Your task to perform on an android device: turn notification dots on Image 0: 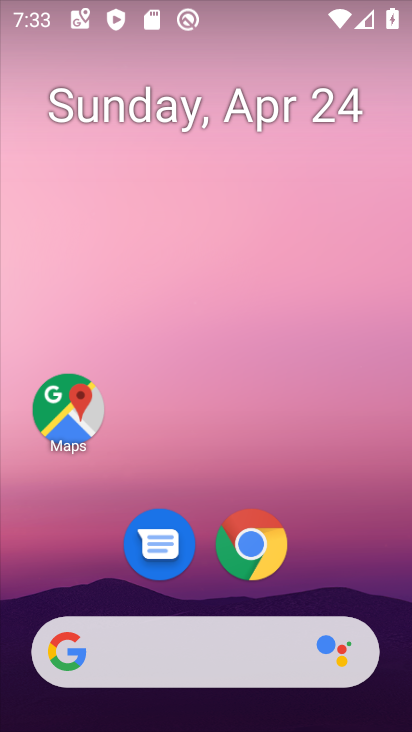
Step 0: drag from (178, 649) to (216, 120)
Your task to perform on an android device: turn notification dots on Image 1: 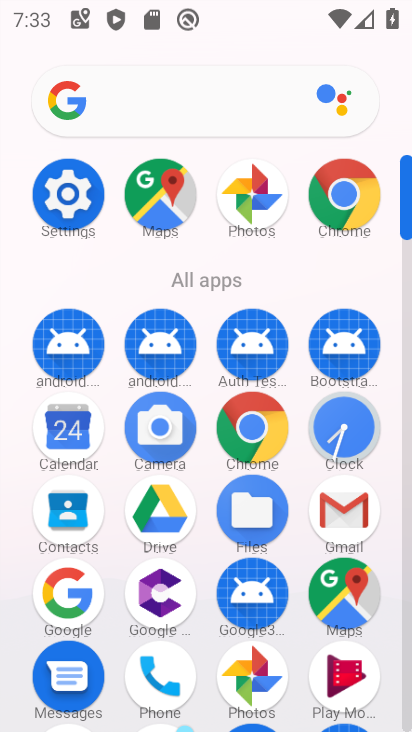
Step 1: click (68, 208)
Your task to perform on an android device: turn notification dots on Image 2: 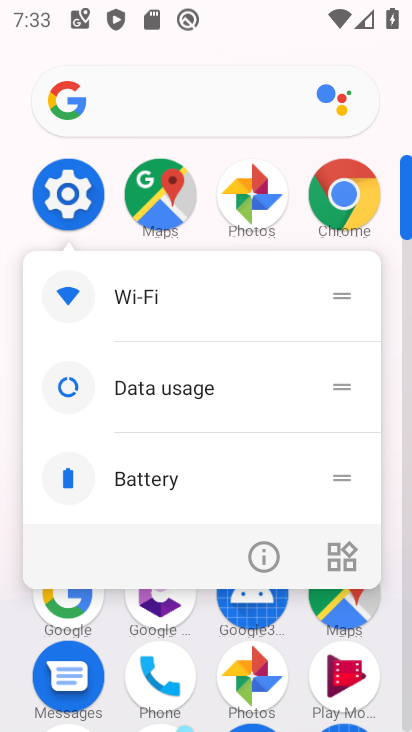
Step 2: click (69, 201)
Your task to perform on an android device: turn notification dots on Image 3: 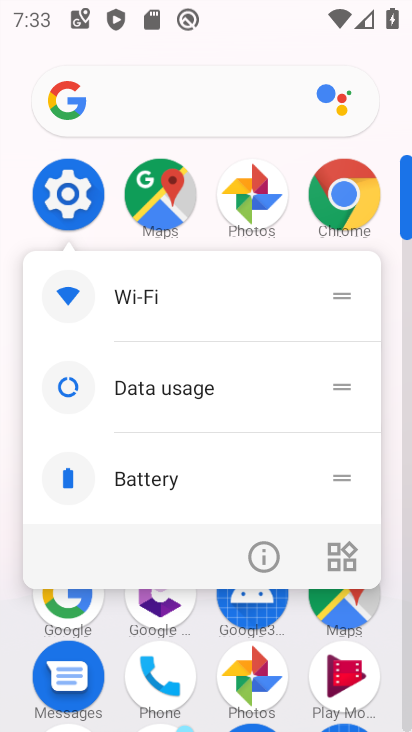
Step 3: click (76, 194)
Your task to perform on an android device: turn notification dots on Image 4: 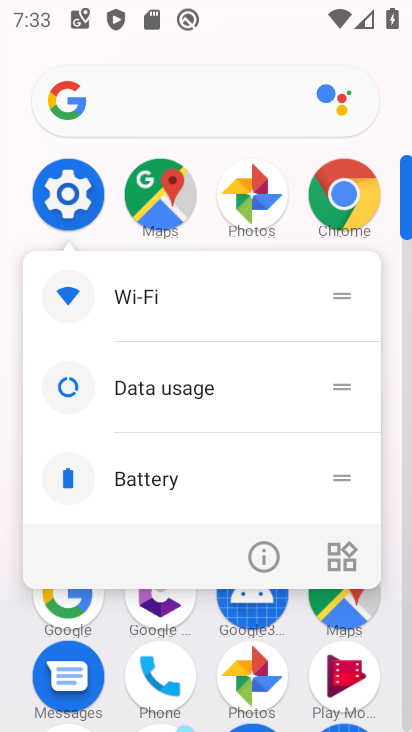
Step 4: click (65, 206)
Your task to perform on an android device: turn notification dots on Image 5: 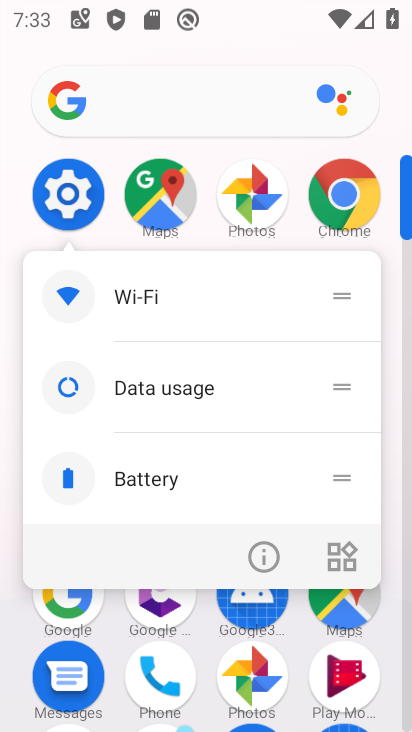
Step 5: click (61, 201)
Your task to perform on an android device: turn notification dots on Image 6: 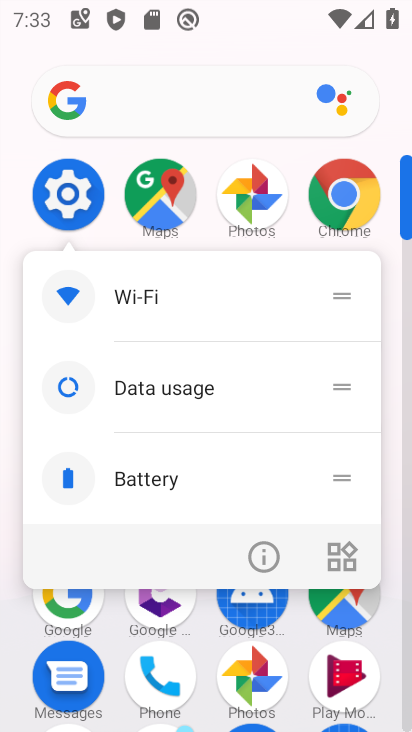
Step 6: click (61, 207)
Your task to perform on an android device: turn notification dots on Image 7: 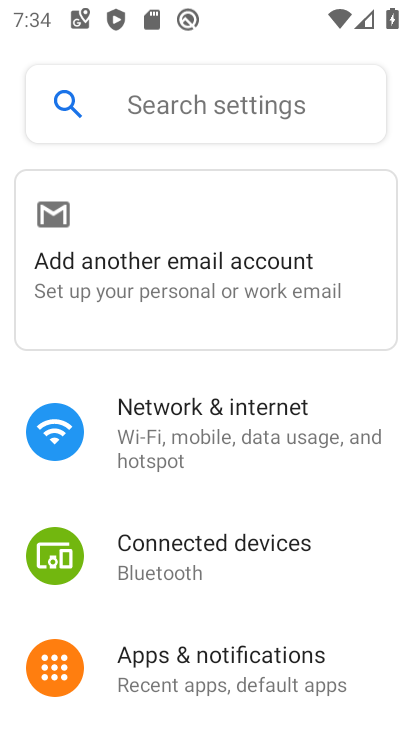
Step 7: click (197, 656)
Your task to perform on an android device: turn notification dots on Image 8: 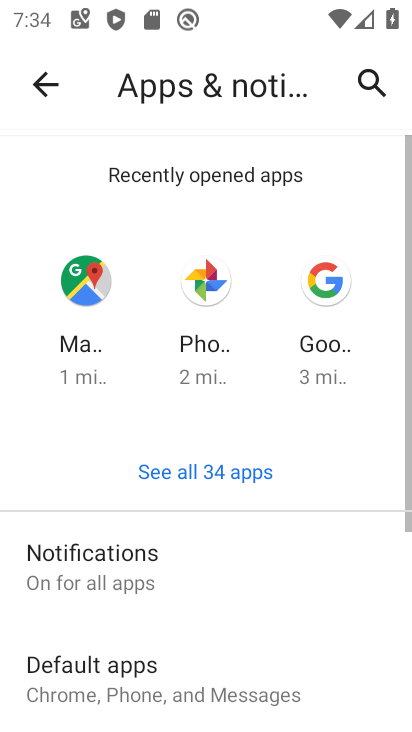
Step 8: click (110, 572)
Your task to perform on an android device: turn notification dots on Image 9: 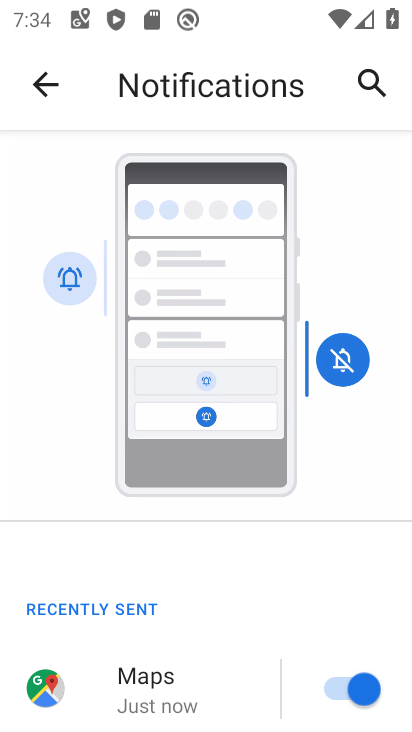
Step 9: drag from (235, 662) to (361, 152)
Your task to perform on an android device: turn notification dots on Image 10: 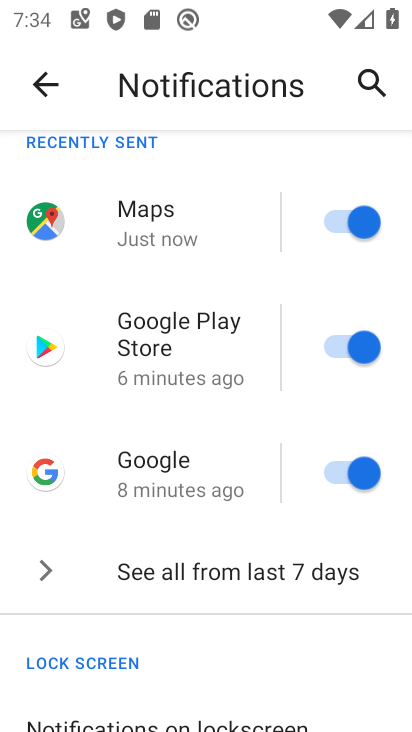
Step 10: drag from (234, 603) to (347, 115)
Your task to perform on an android device: turn notification dots on Image 11: 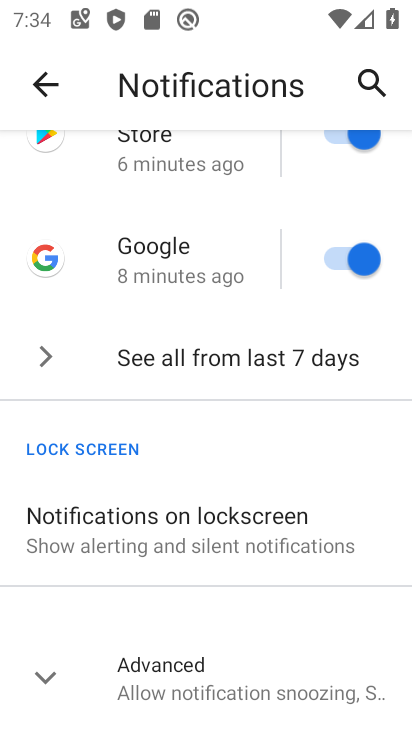
Step 11: click (132, 669)
Your task to perform on an android device: turn notification dots on Image 12: 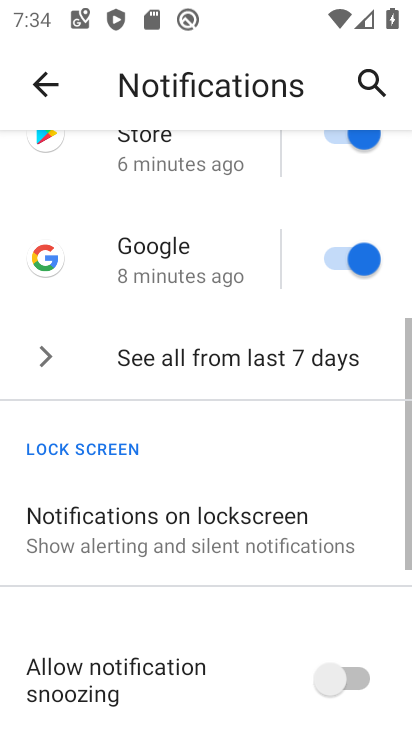
Step 12: task complete